Your task to perform on an android device: What's the weather? Image 0: 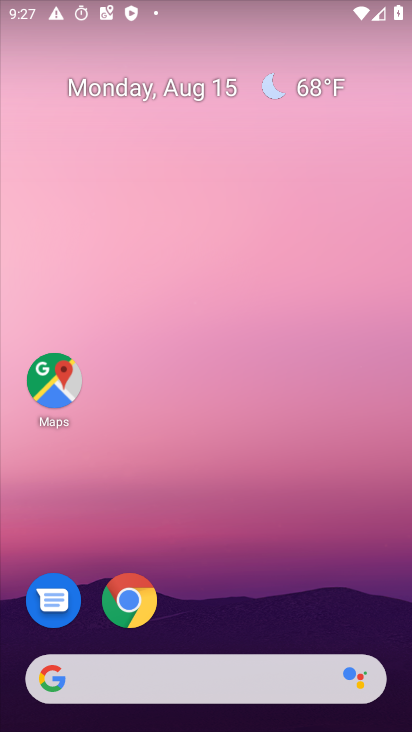
Step 0: click (269, 90)
Your task to perform on an android device: What's the weather? Image 1: 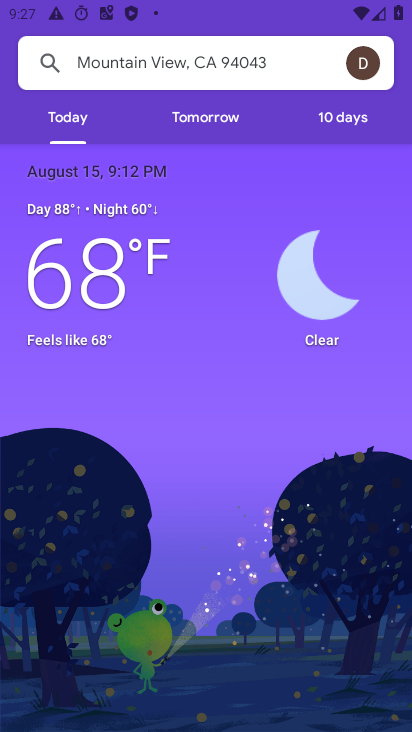
Step 1: task complete